Your task to perform on an android device: Open internet settings Image 0: 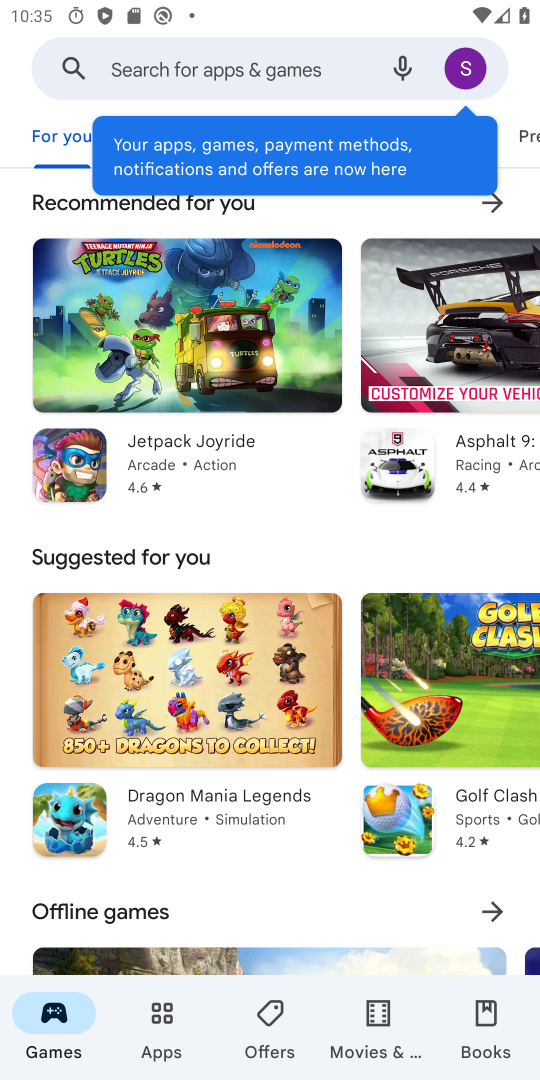
Step 0: press home button
Your task to perform on an android device: Open internet settings Image 1: 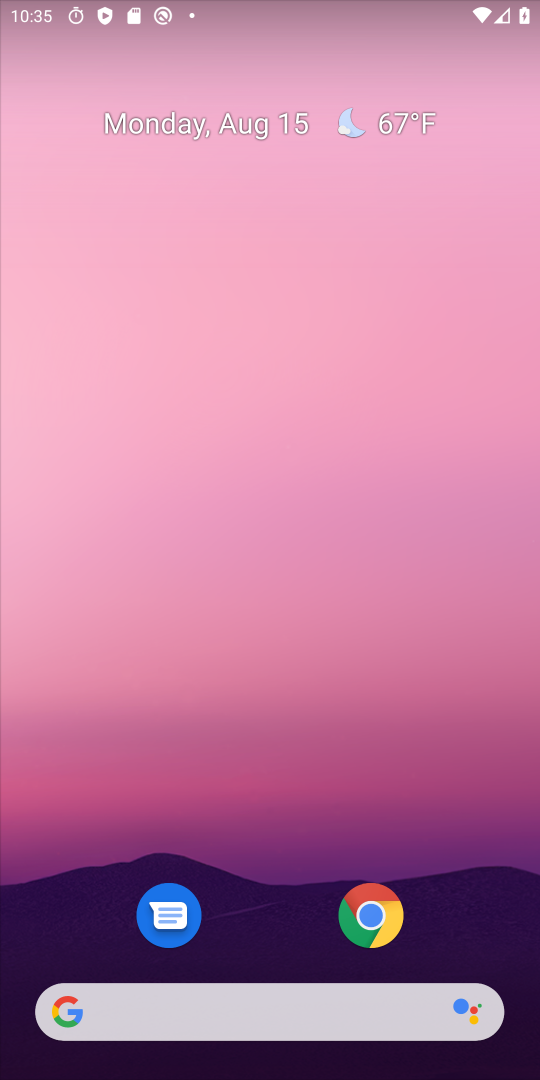
Step 1: drag from (441, 885) to (327, 460)
Your task to perform on an android device: Open internet settings Image 2: 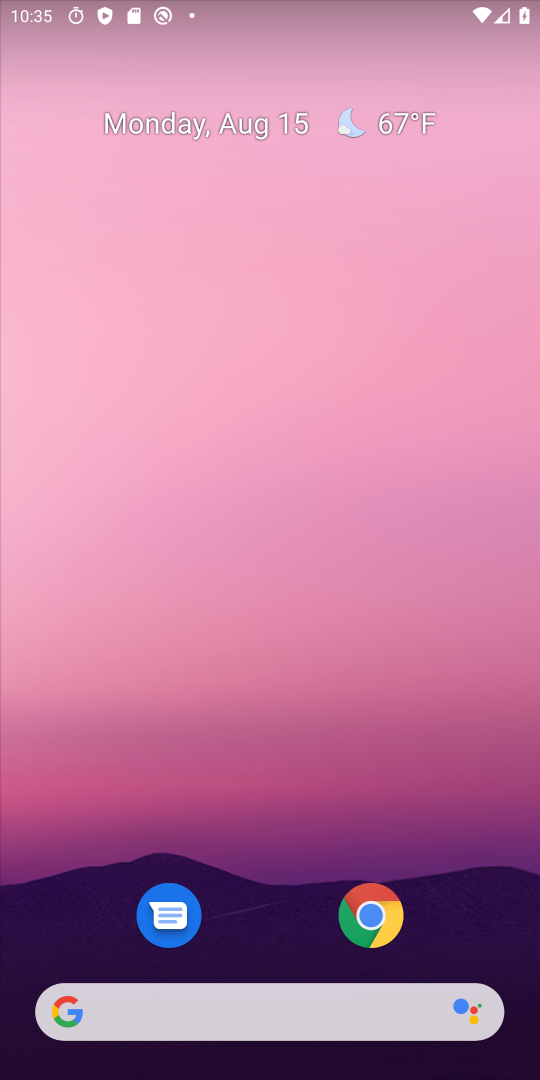
Step 2: drag from (474, 856) to (346, 101)
Your task to perform on an android device: Open internet settings Image 3: 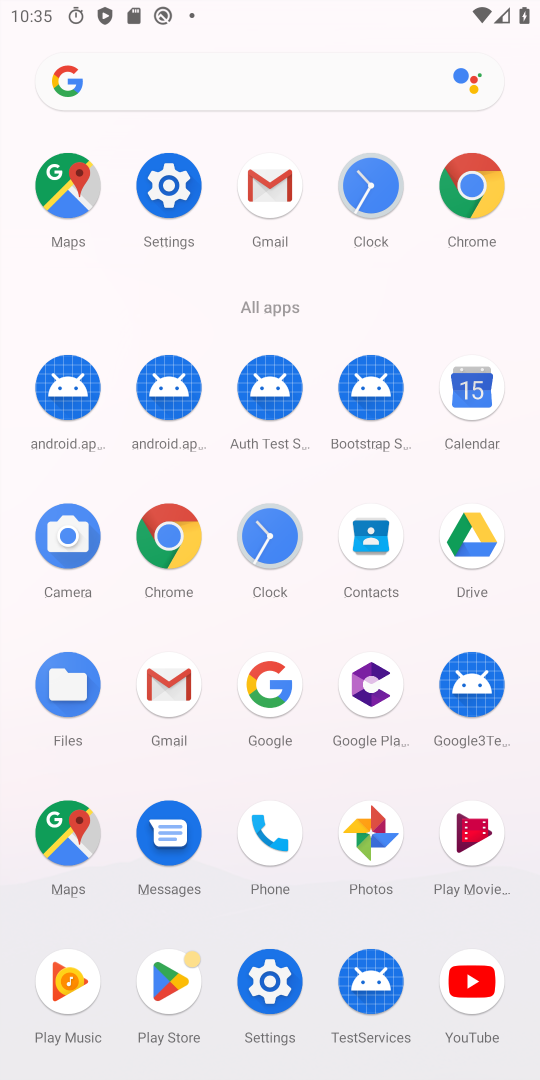
Step 3: drag from (451, 769) to (322, 296)
Your task to perform on an android device: Open internet settings Image 4: 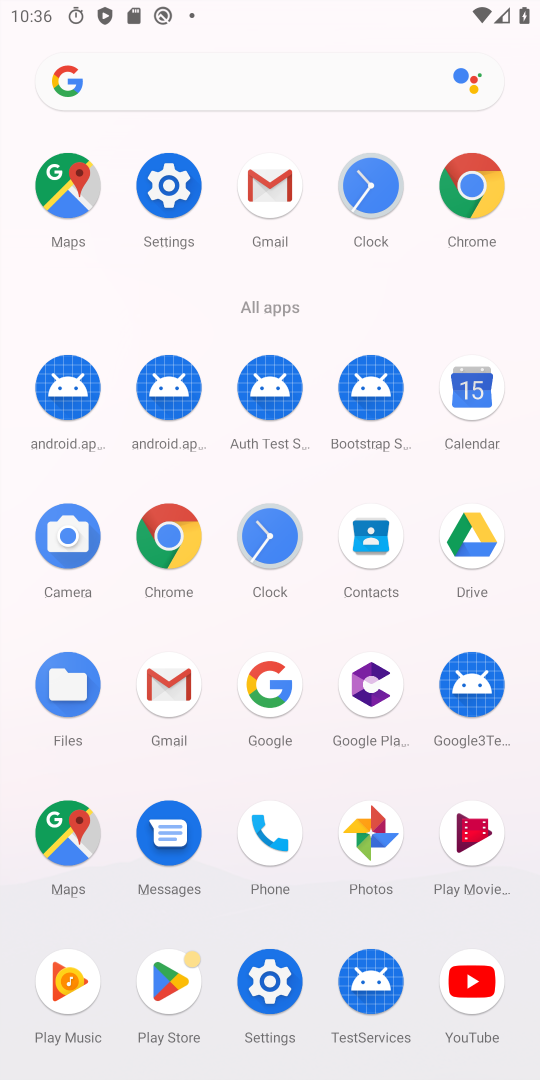
Step 4: click (267, 971)
Your task to perform on an android device: Open internet settings Image 5: 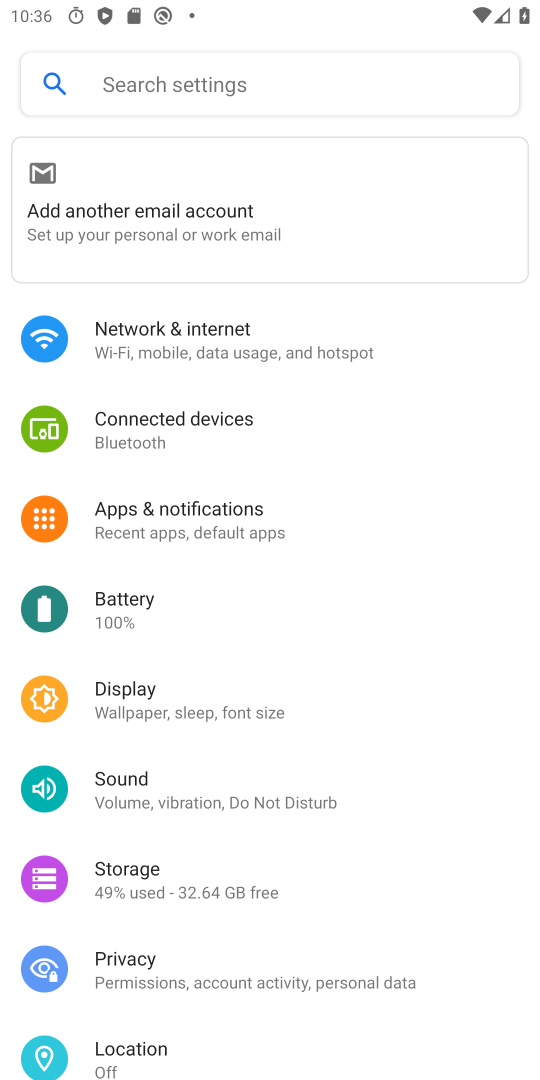
Step 5: click (164, 337)
Your task to perform on an android device: Open internet settings Image 6: 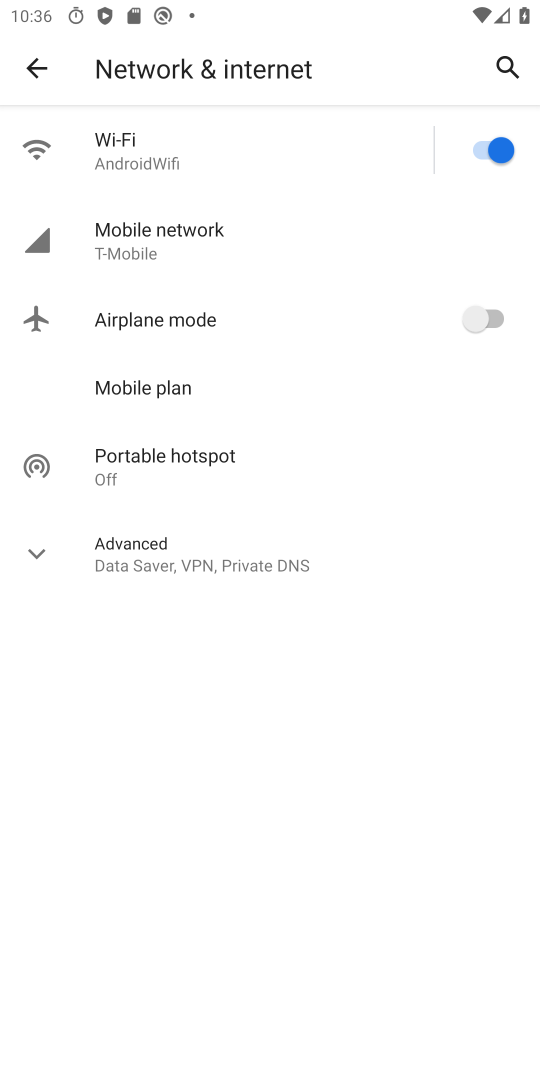
Step 6: task complete